Your task to perform on an android device: change the clock display to digital Image 0: 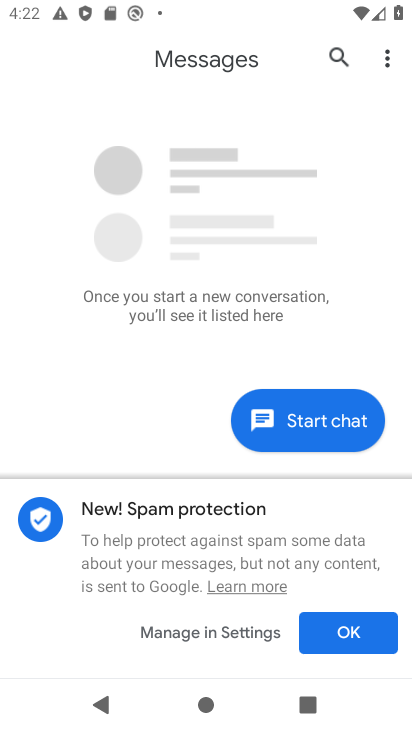
Step 0: press back button
Your task to perform on an android device: change the clock display to digital Image 1: 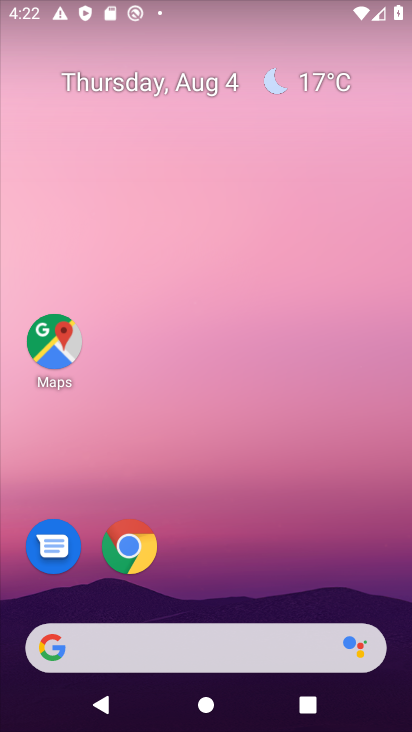
Step 1: drag from (228, 72) to (275, 27)
Your task to perform on an android device: change the clock display to digital Image 2: 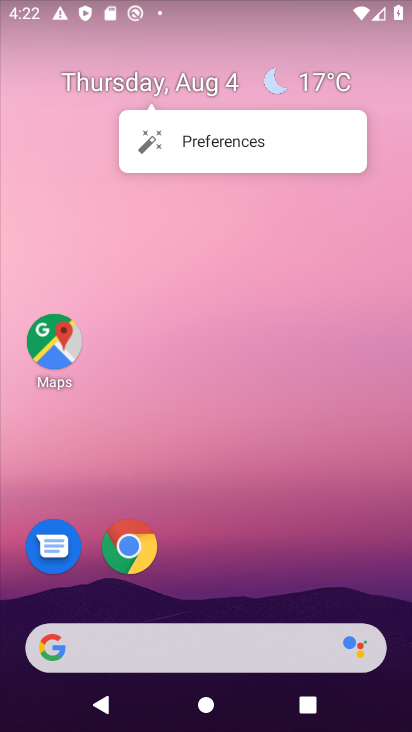
Step 2: drag from (219, 549) to (247, 6)
Your task to perform on an android device: change the clock display to digital Image 3: 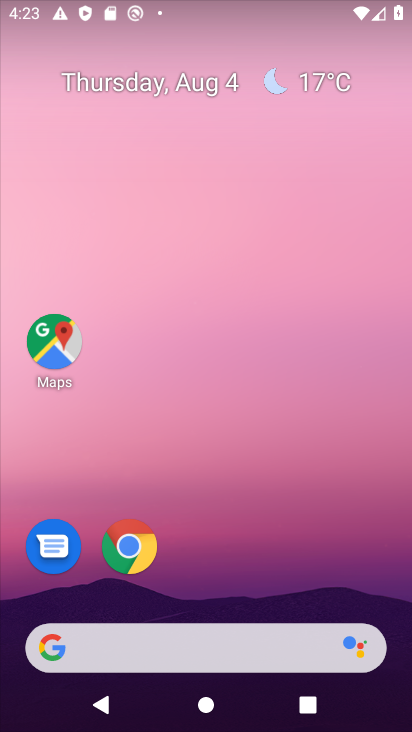
Step 3: drag from (187, 577) to (330, 12)
Your task to perform on an android device: change the clock display to digital Image 4: 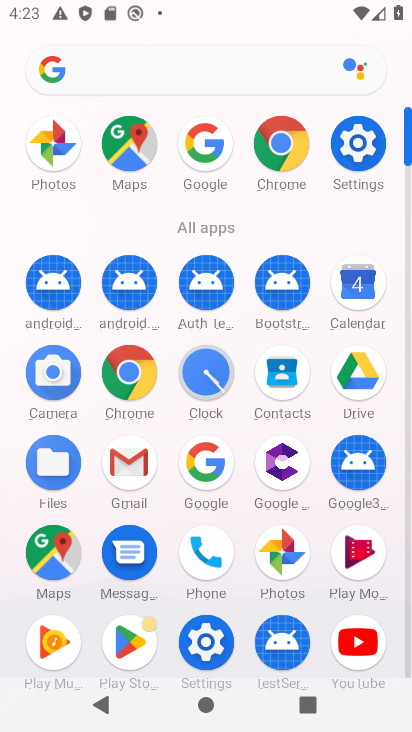
Step 4: click (199, 381)
Your task to perform on an android device: change the clock display to digital Image 5: 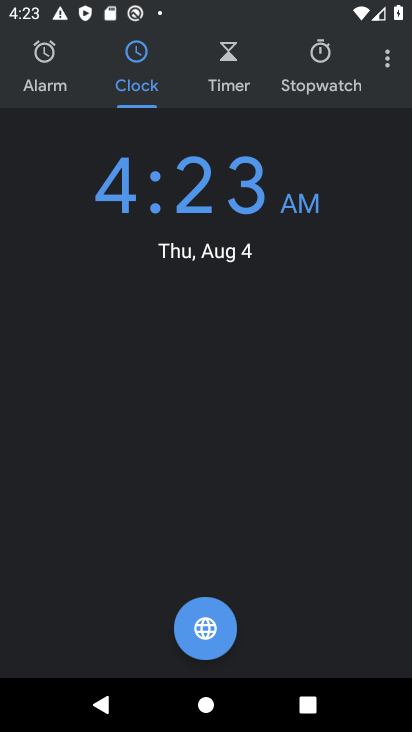
Step 5: click (391, 58)
Your task to perform on an android device: change the clock display to digital Image 6: 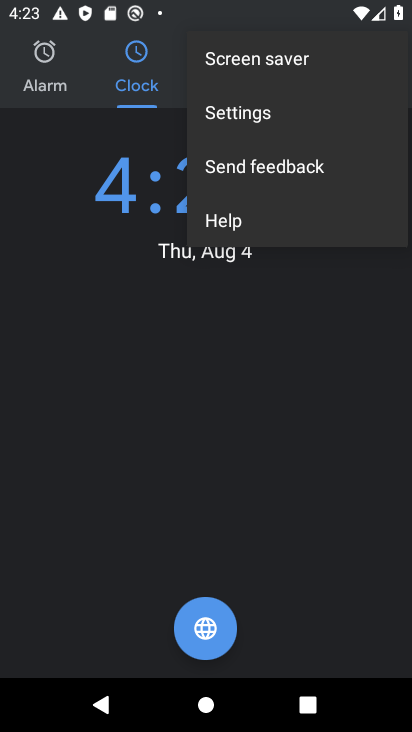
Step 6: click (302, 122)
Your task to perform on an android device: change the clock display to digital Image 7: 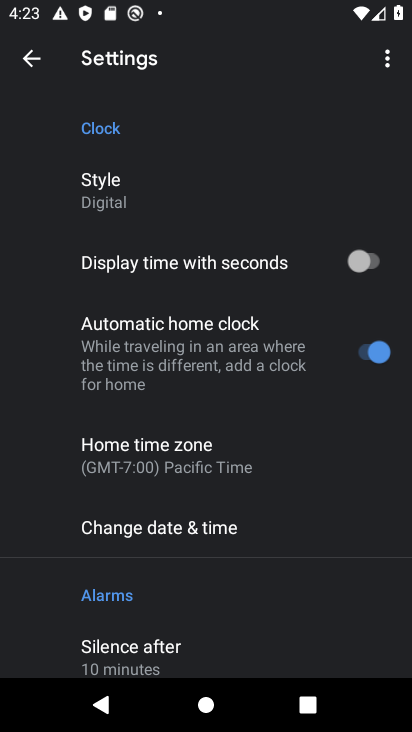
Step 7: task complete